Your task to perform on an android device: Open eBay Image 0: 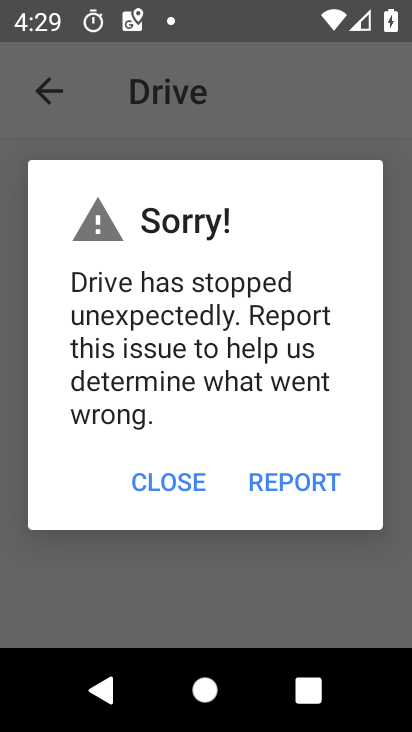
Step 0: press home button
Your task to perform on an android device: Open eBay Image 1: 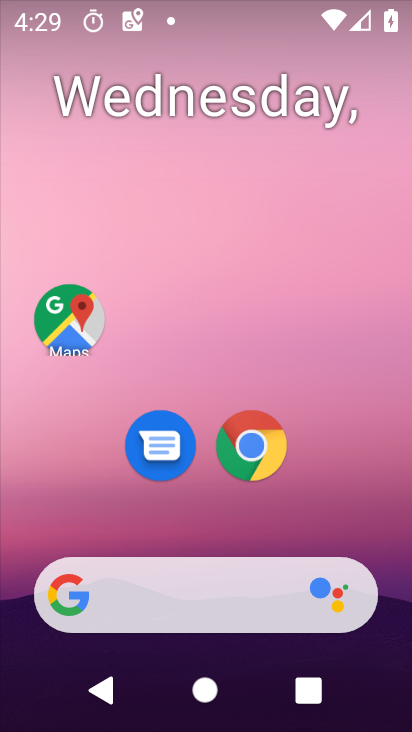
Step 1: drag from (189, 464) to (214, 1)
Your task to perform on an android device: Open eBay Image 2: 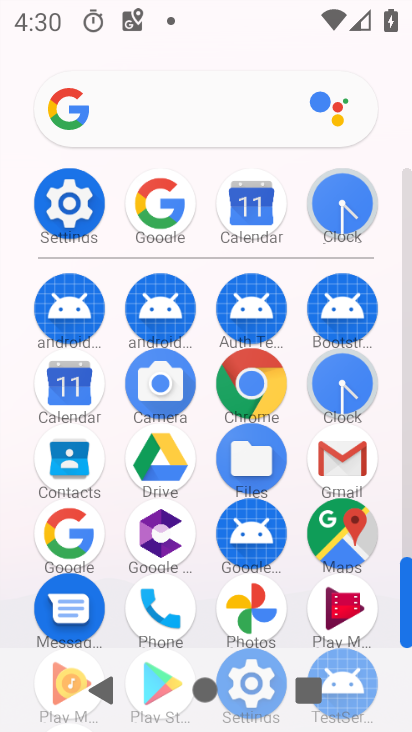
Step 2: click (159, 201)
Your task to perform on an android device: Open eBay Image 3: 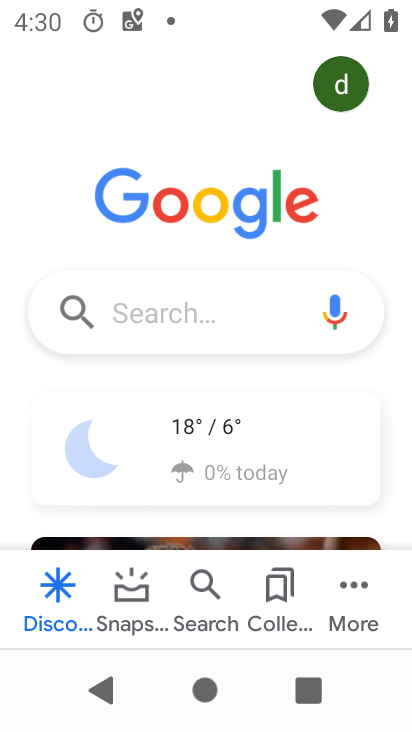
Step 3: click (182, 330)
Your task to perform on an android device: Open eBay Image 4: 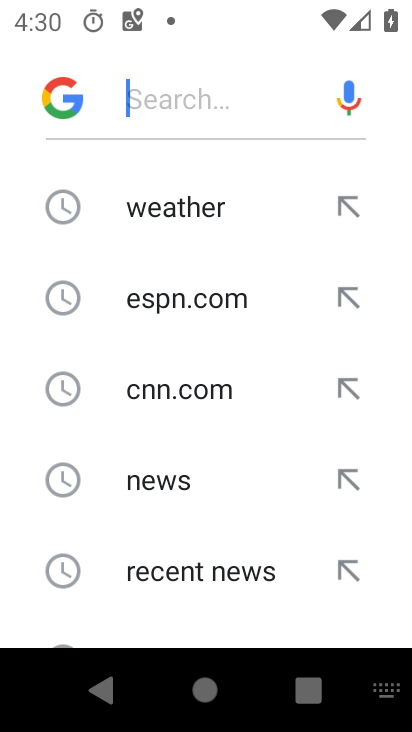
Step 4: drag from (150, 507) to (182, 134)
Your task to perform on an android device: Open eBay Image 5: 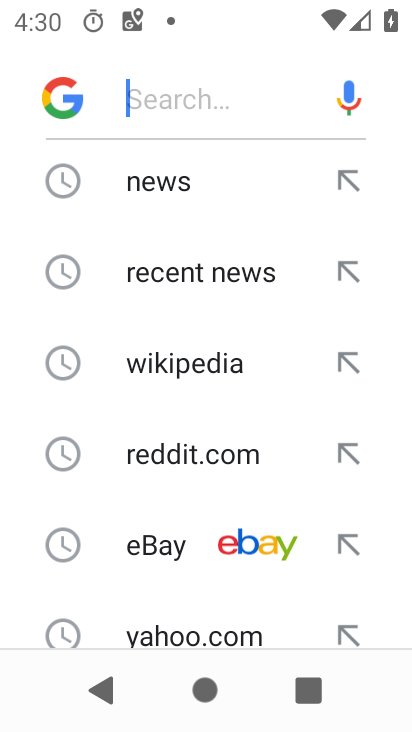
Step 5: click (179, 545)
Your task to perform on an android device: Open eBay Image 6: 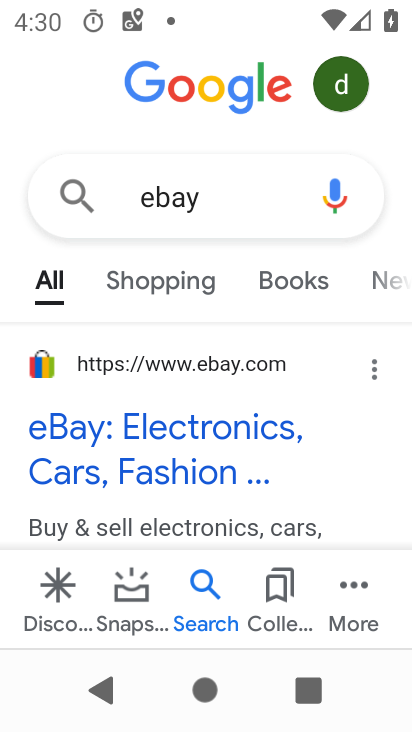
Step 6: task complete